Your task to perform on an android device: Open settings on Google Maps Image 0: 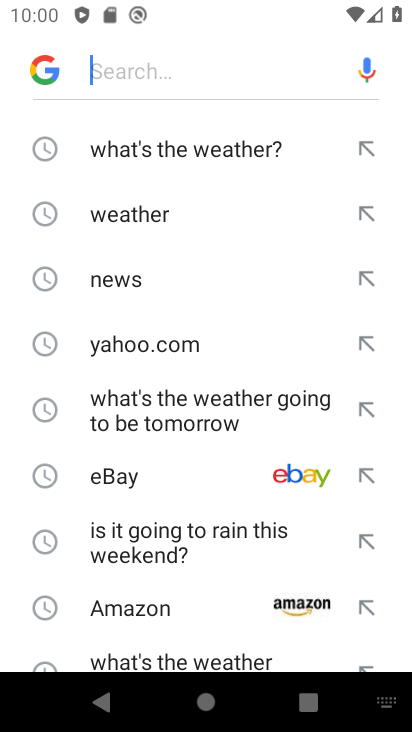
Step 0: press home button
Your task to perform on an android device: Open settings on Google Maps Image 1: 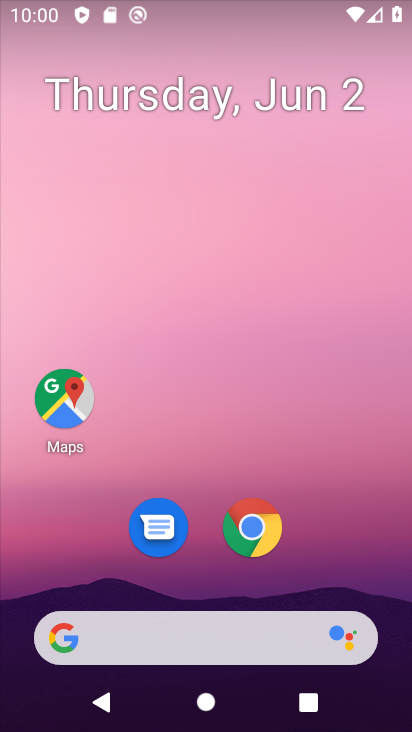
Step 1: click (57, 395)
Your task to perform on an android device: Open settings on Google Maps Image 2: 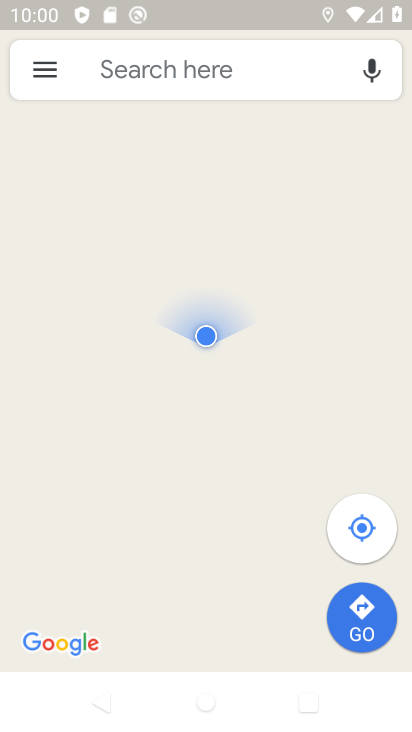
Step 2: click (47, 60)
Your task to perform on an android device: Open settings on Google Maps Image 3: 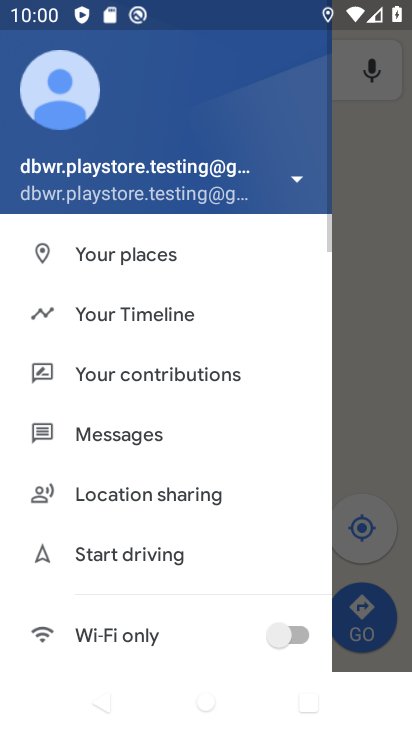
Step 3: drag from (101, 563) to (126, 12)
Your task to perform on an android device: Open settings on Google Maps Image 4: 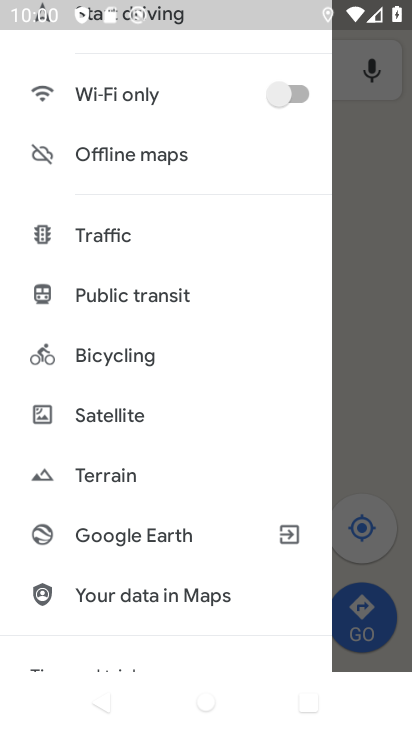
Step 4: drag from (143, 534) to (147, 85)
Your task to perform on an android device: Open settings on Google Maps Image 5: 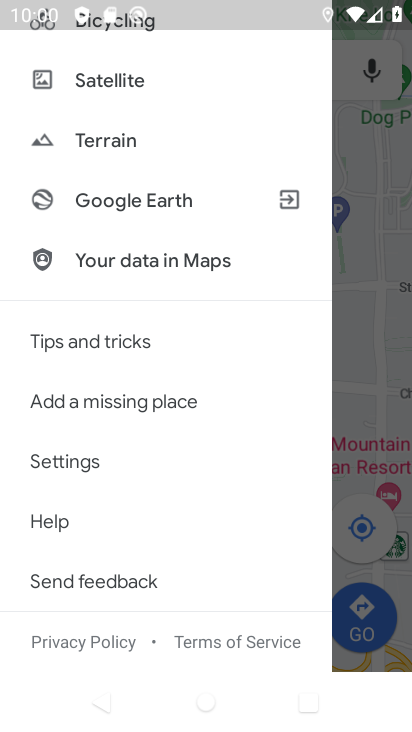
Step 5: click (51, 454)
Your task to perform on an android device: Open settings on Google Maps Image 6: 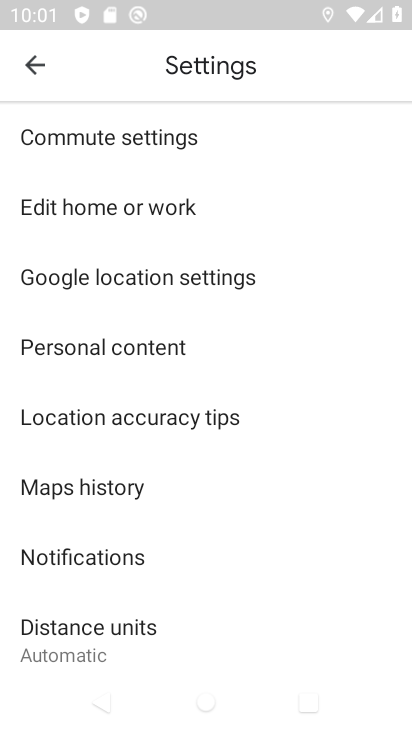
Step 6: task complete